Your task to perform on an android device: change keyboard looks Image 0: 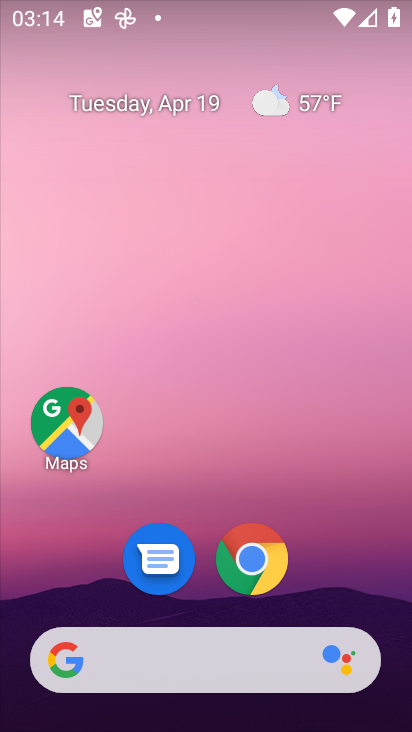
Step 0: drag from (201, 608) to (221, 69)
Your task to perform on an android device: change keyboard looks Image 1: 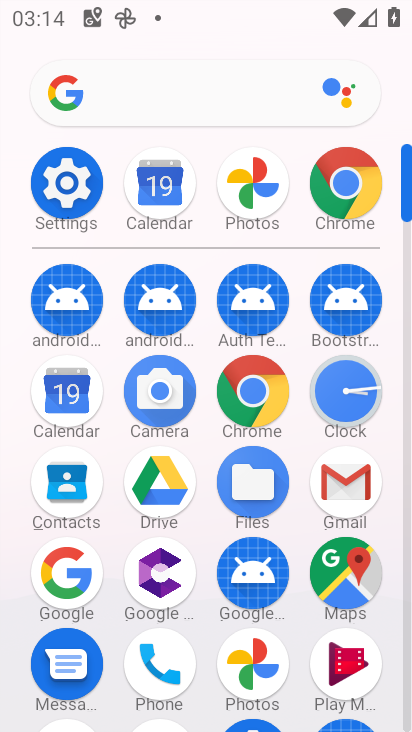
Step 1: click (70, 171)
Your task to perform on an android device: change keyboard looks Image 2: 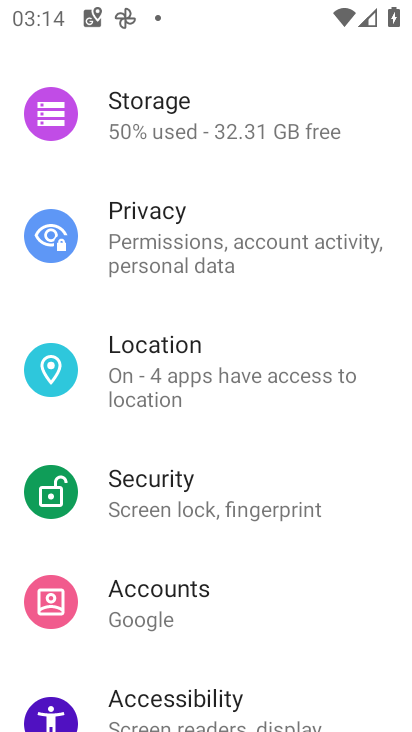
Step 2: drag from (204, 646) to (172, 132)
Your task to perform on an android device: change keyboard looks Image 3: 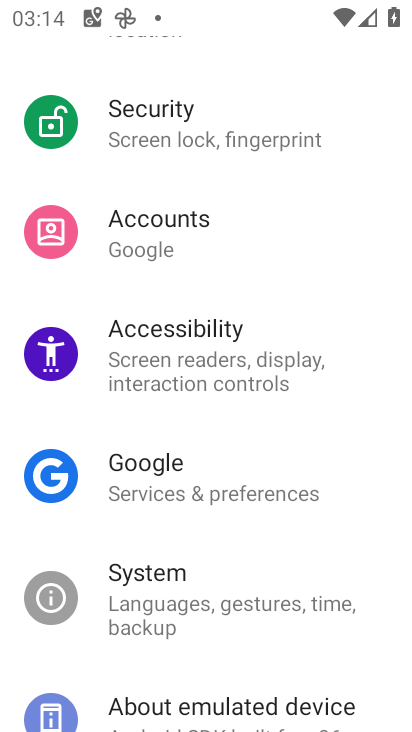
Step 3: click (200, 579)
Your task to perform on an android device: change keyboard looks Image 4: 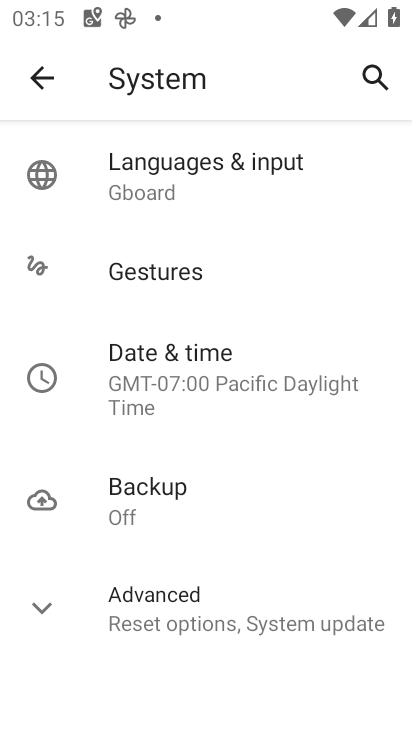
Step 4: click (87, 175)
Your task to perform on an android device: change keyboard looks Image 5: 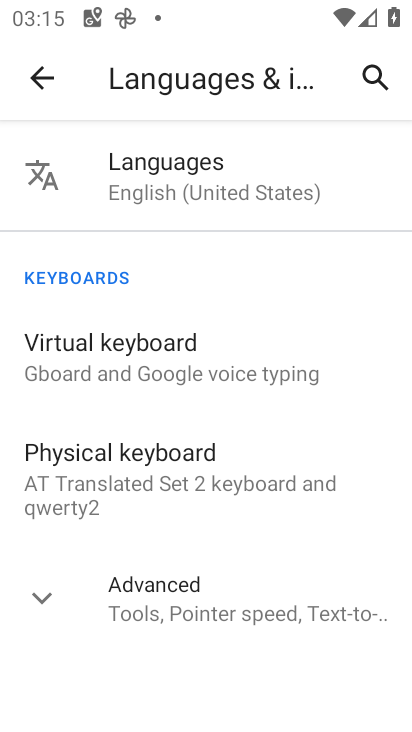
Step 5: click (176, 356)
Your task to perform on an android device: change keyboard looks Image 6: 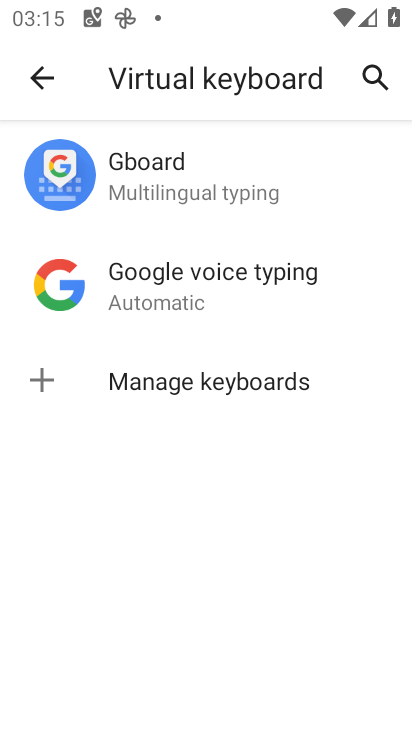
Step 6: click (177, 175)
Your task to perform on an android device: change keyboard looks Image 7: 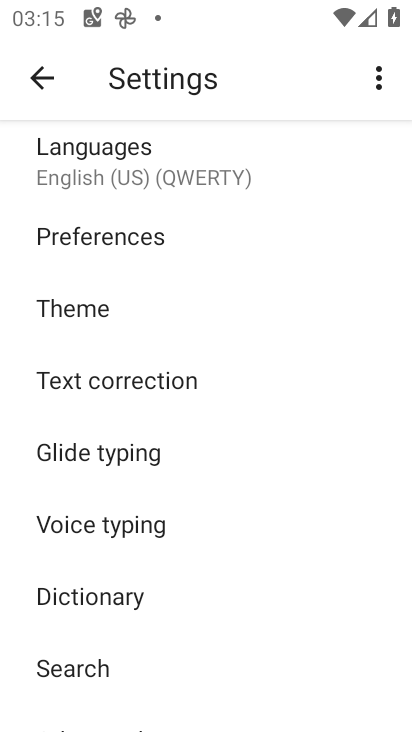
Step 7: click (119, 301)
Your task to perform on an android device: change keyboard looks Image 8: 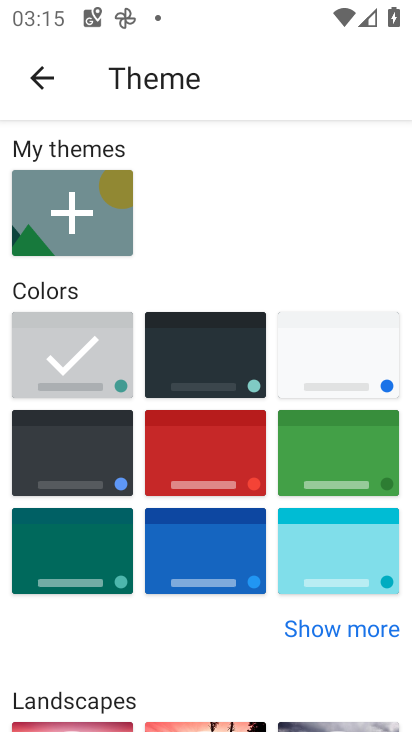
Step 8: click (231, 458)
Your task to perform on an android device: change keyboard looks Image 9: 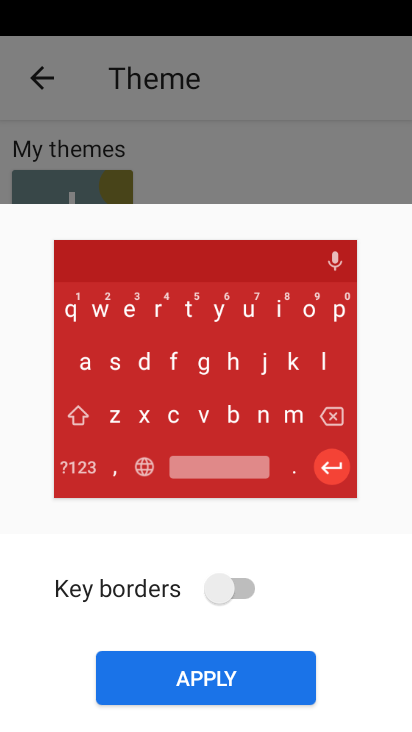
Step 9: click (210, 679)
Your task to perform on an android device: change keyboard looks Image 10: 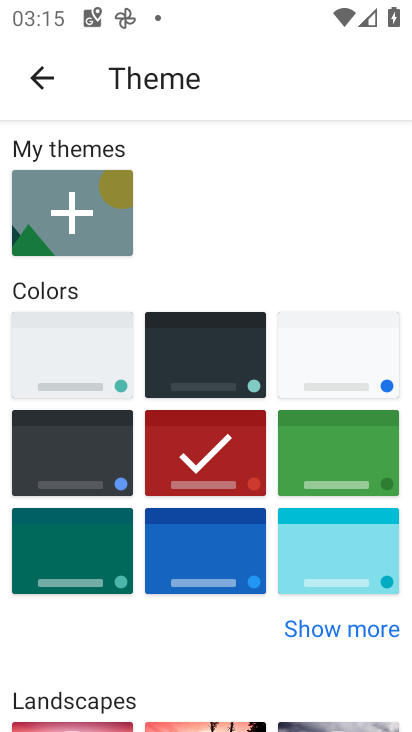
Step 10: task complete